Your task to perform on an android device: change the clock display to digital Image 0: 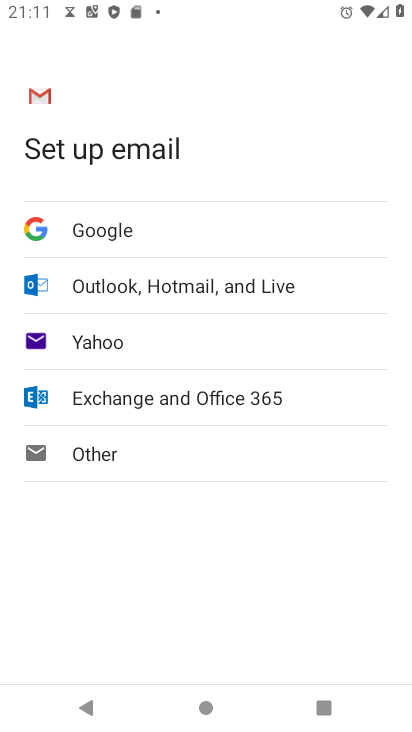
Step 0: press home button
Your task to perform on an android device: change the clock display to digital Image 1: 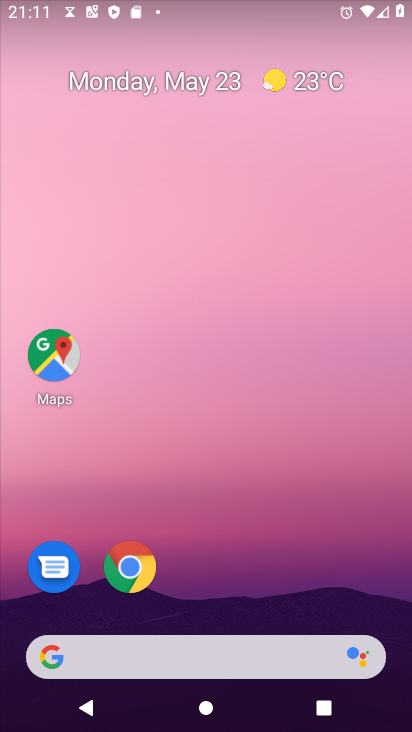
Step 1: drag from (239, 604) to (295, 201)
Your task to perform on an android device: change the clock display to digital Image 2: 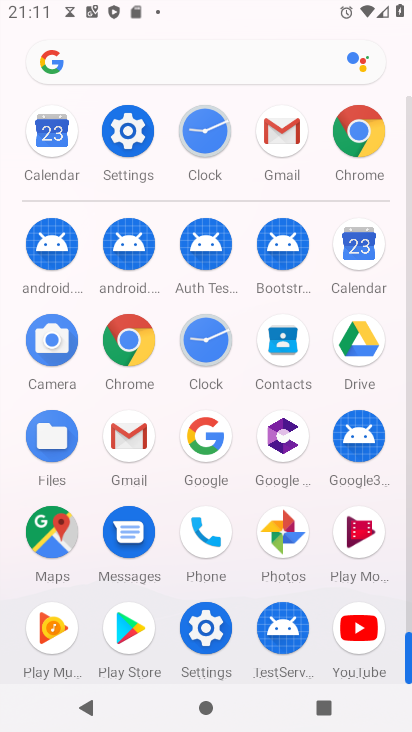
Step 2: click (215, 332)
Your task to perform on an android device: change the clock display to digital Image 3: 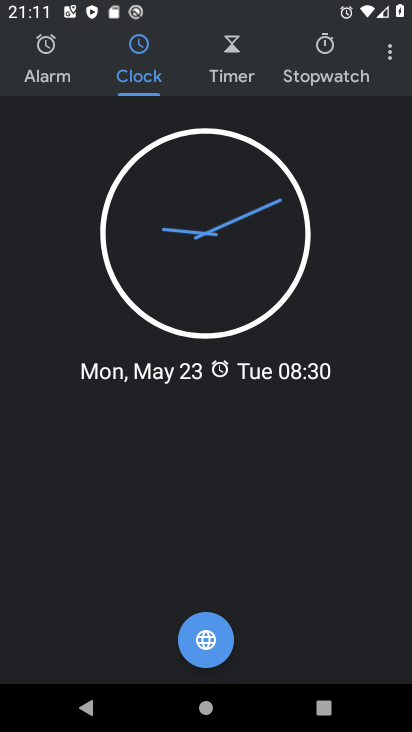
Step 3: click (386, 64)
Your task to perform on an android device: change the clock display to digital Image 4: 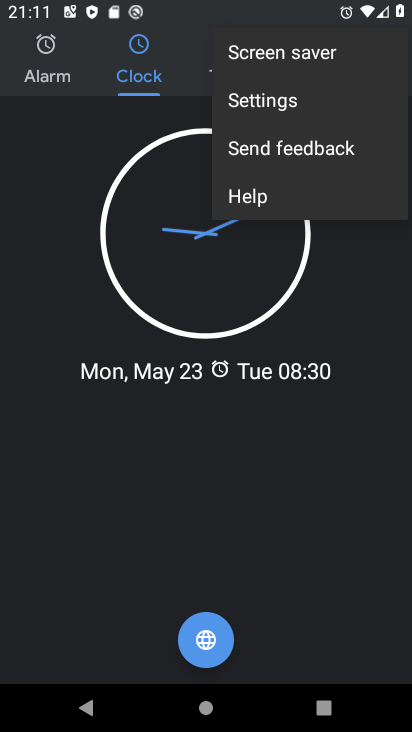
Step 4: click (283, 95)
Your task to perform on an android device: change the clock display to digital Image 5: 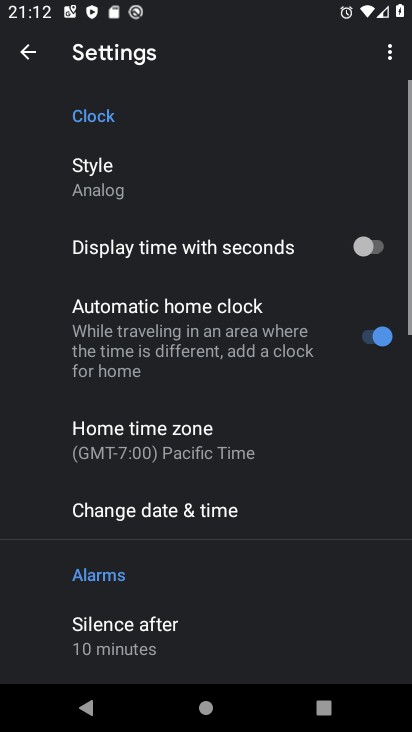
Step 5: click (118, 174)
Your task to perform on an android device: change the clock display to digital Image 6: 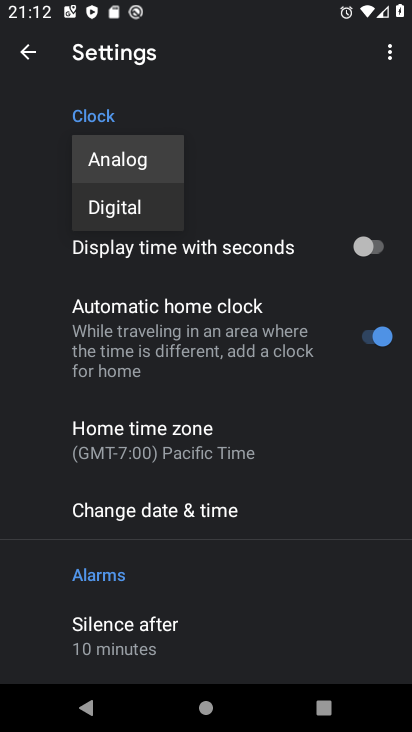
Step 6: click (128, 210)
Your task to perform on an android device: change the clock display to digital Image 7: 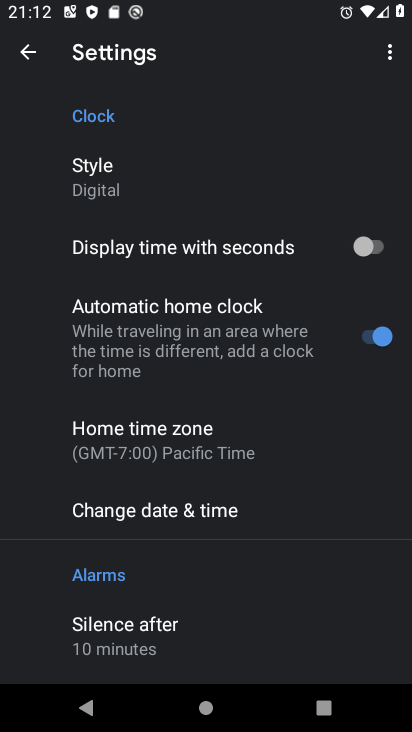
Step 7: task complete